Your task to perform on an android device: Go to display settings Image 0: 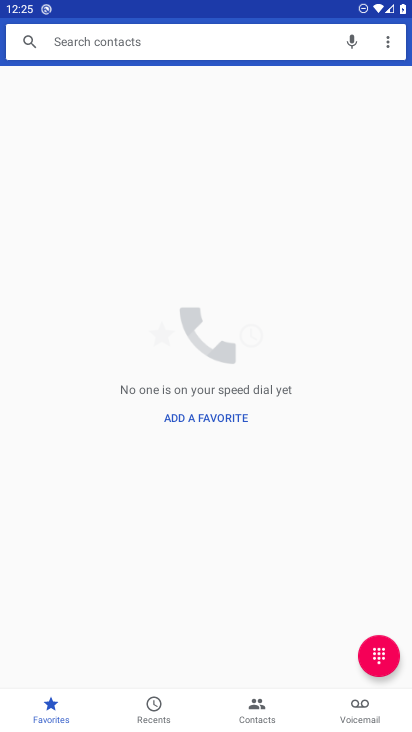
Step 0: press home button
Your task to perform on an android device: Go to display settings Image 1: 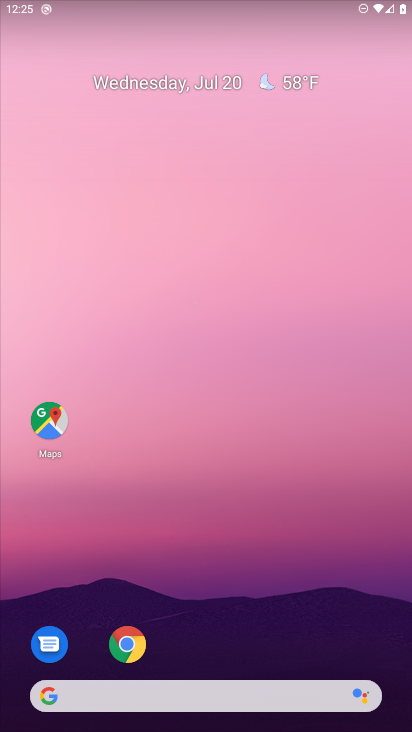
Step 1: drag from (25, 672) to (191, 293)
Your task to perform on an android device: Go to display settings Image 2: 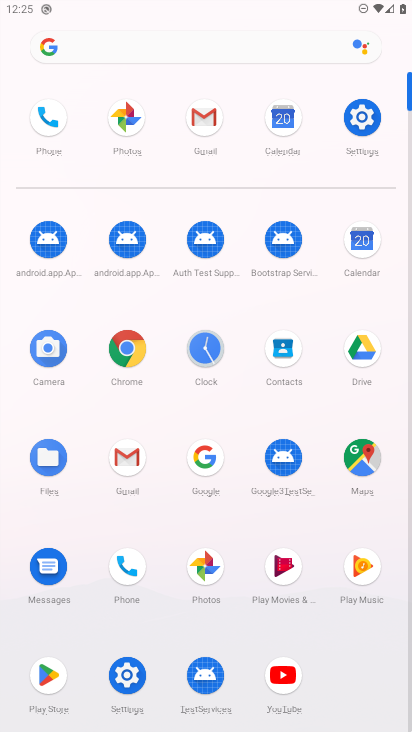
Step 2: click (132, 662)
Your task to perform on an android device: Go to display settings Image 3: 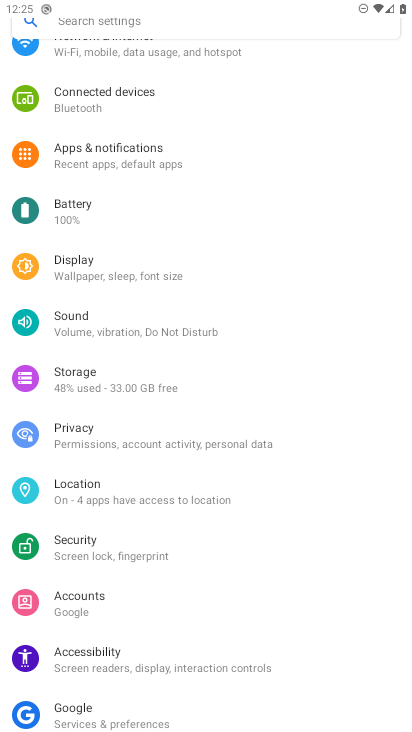
Step 3: click (83, 270)
Your task to perform on an android device: Go to display settings Image 4: 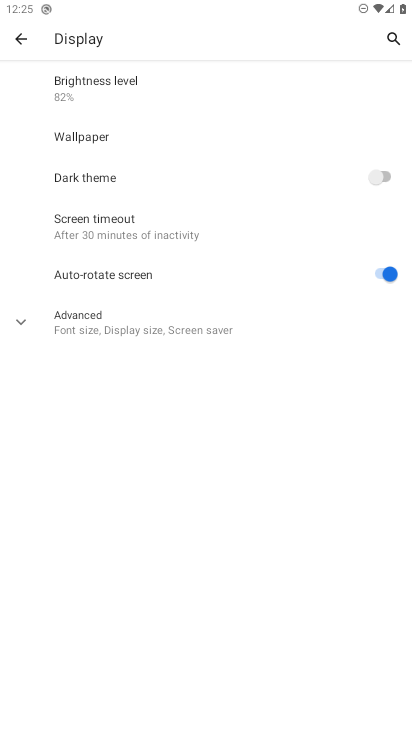
Step 4: task complete